Your task to perform on an android device: Open Chrome and go to the settings page Image 0: 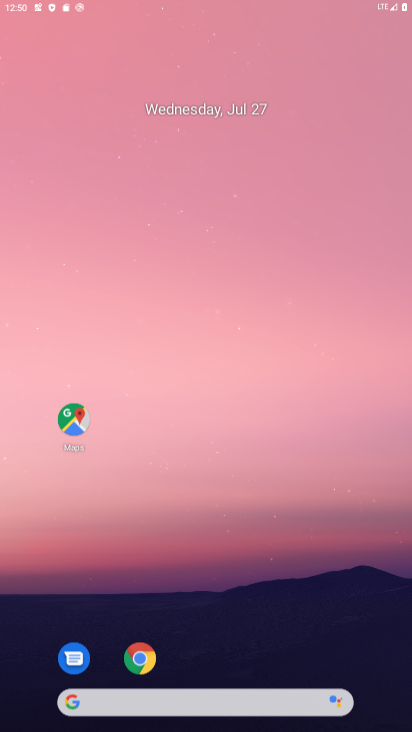
Step 0: click (312, 515)
Your task to perform on an android device: Open Chrome and go to the settings page Image 1: 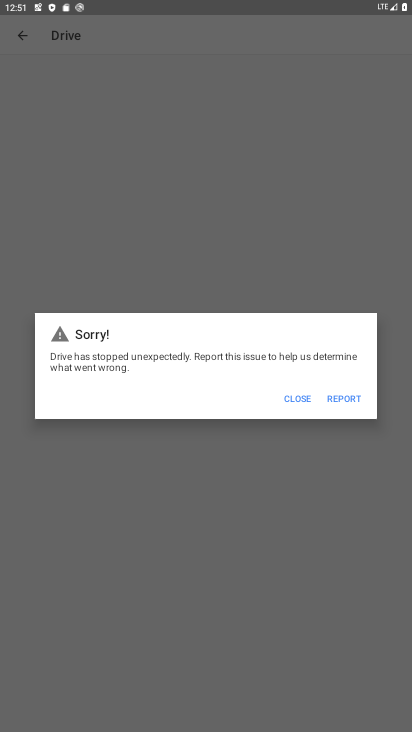
Step 1: press home button
Your task to perform on an android device: Open Chrome and go to the settings page Image 2: 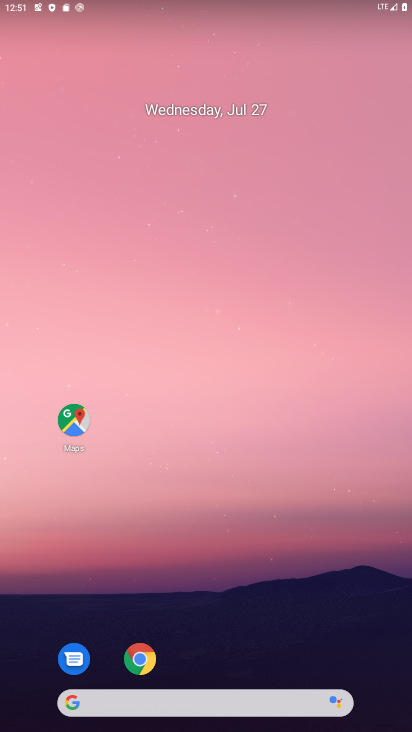
Step 2: drag from (255, 640) to (246, 40)
Your task to perform on an android device: Open Chrome and go to the settings page Image 3: 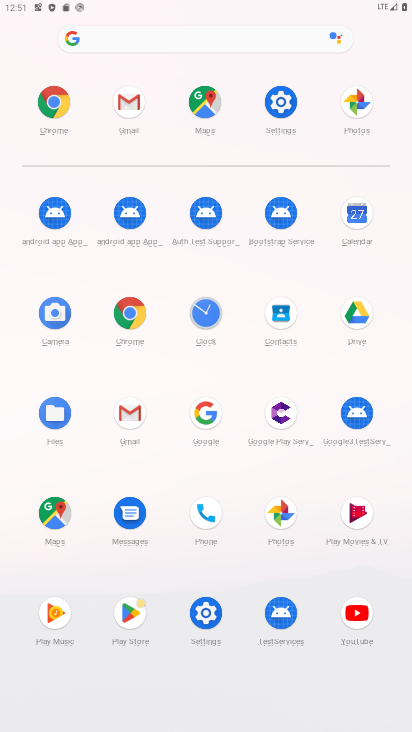
Step 3: click (128, 322)
Your task to perform on an android device: Open Chrome and go to the settings page Image 4: 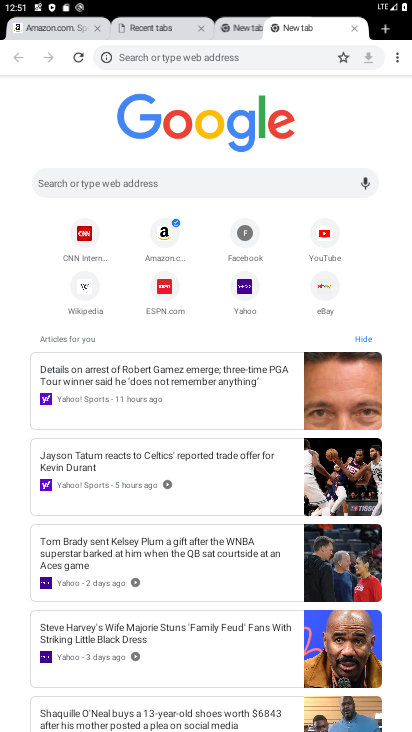
Step 4: click (401, 54)
Your task to perform on an android device: Open Chrome and go to the settings page Image 5: 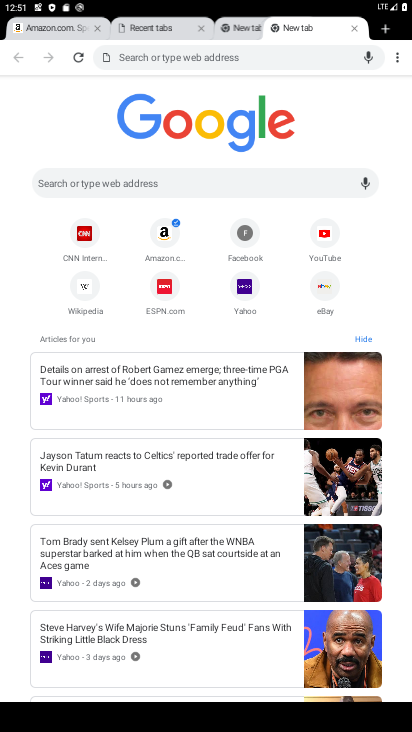
Step 5: click (394, 62)
Your task to perform on an android device: Open Chrome and go to the settings page Image 6: 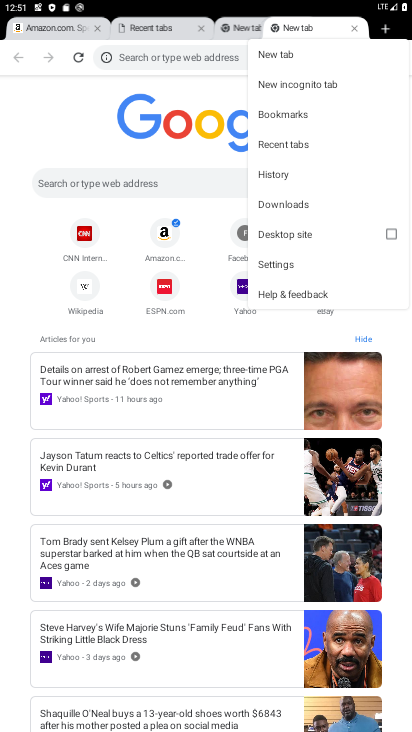
Step 6: click (301, 267)
Your task to perform on an android device: Open Chrome and go to the settings page Image 7: 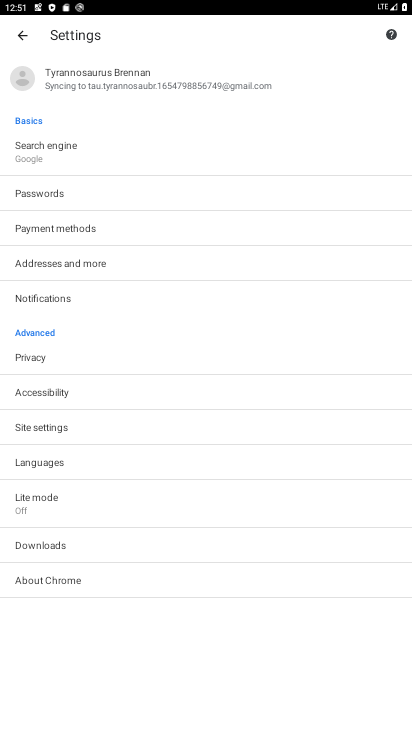
Step 7: task complete